Your task to perform on an android device: Find coffee shops on Maps Image 0: 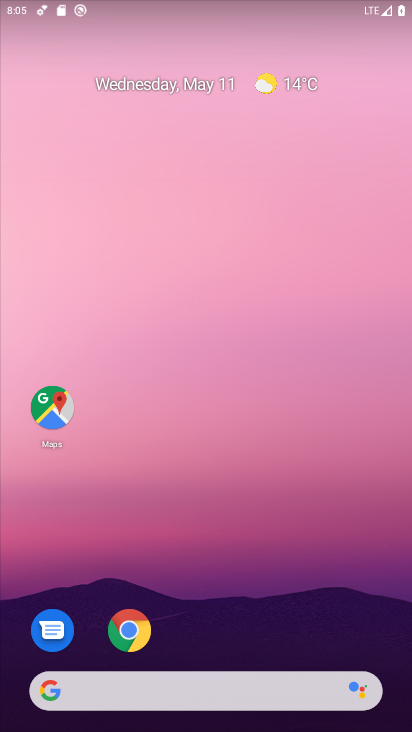
Step 0: click (48, 408)
Your task to perform on an android device: Find coffee shops on Maps Image 1: 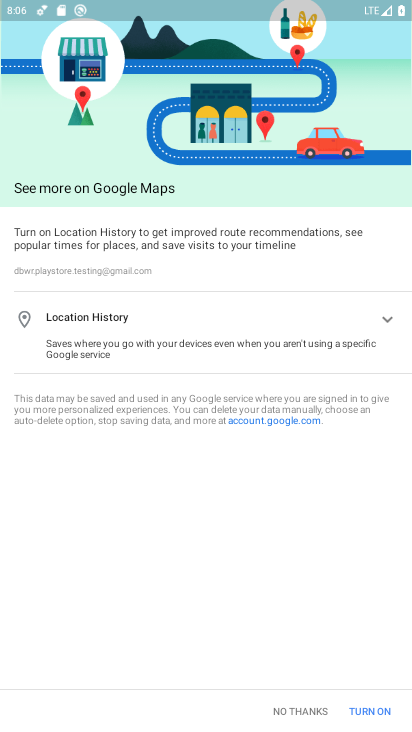
Step 1: click (315, 714)
Your task to perform on an android device: Find coffee shops on Maps Image 2: 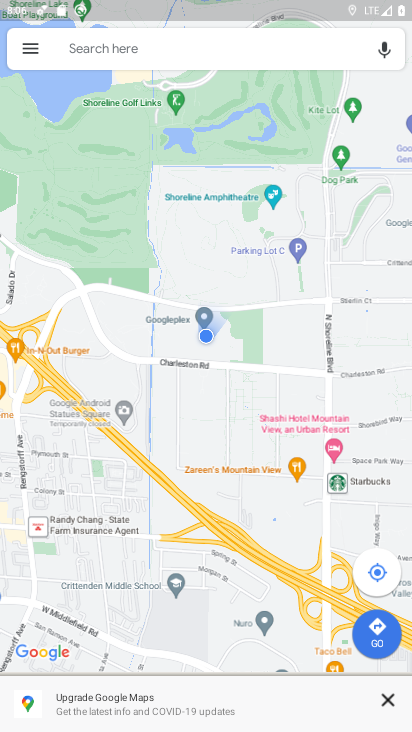
Step 2: click (169, 42)
Your task to perform on an android device: Find coffee shops on Maps Image 3: 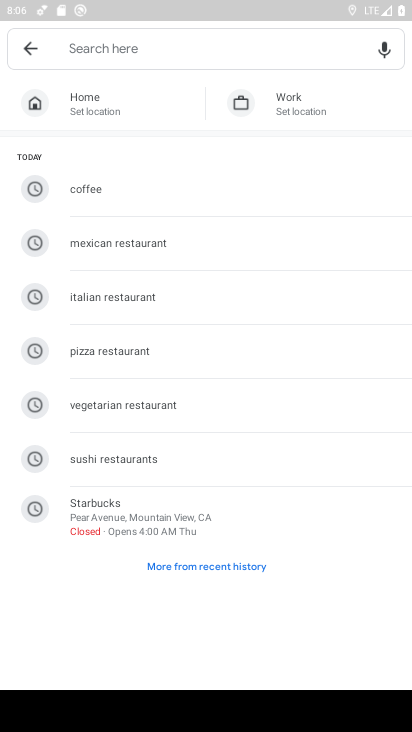
Step 3: click (111, 197)
Your task to perform on an android device: Find coffee shops on Maps Image 4: 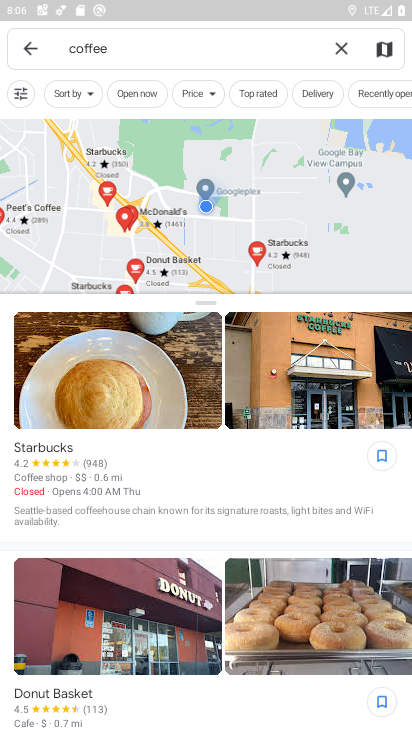
Step 4: task complete